Your task to perform on an android device: turn on the 12-hour format for clock Image 0: 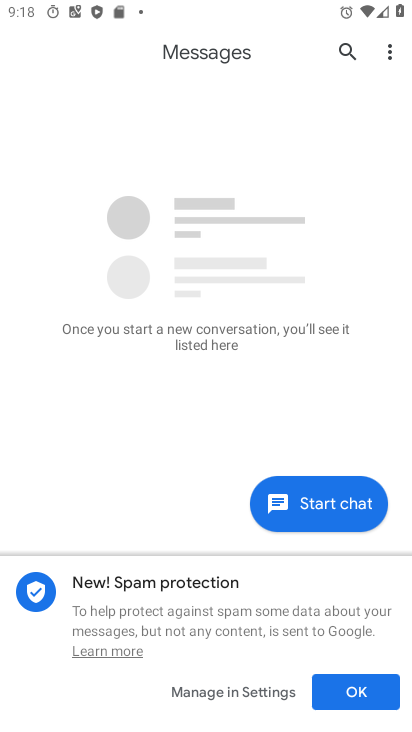
Step 0: press home button
Your task to perform on an android device: turn on the 12-hour format for clock Image 1: 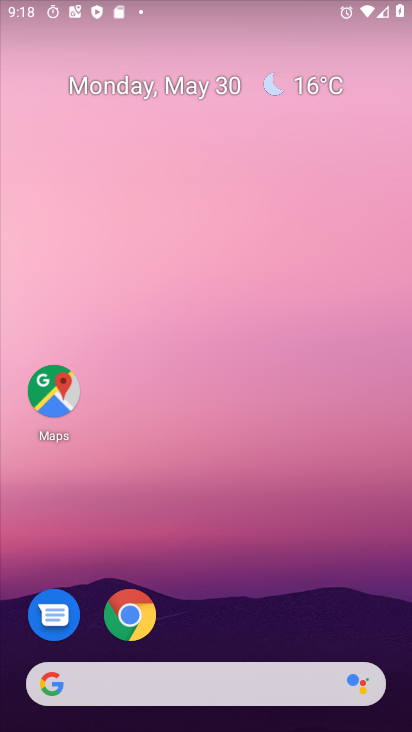
Step 1: drag from (325, 620) to (394, 137)
Your task to perform on an android device: turn on the 12-hour format for clock Image 2: 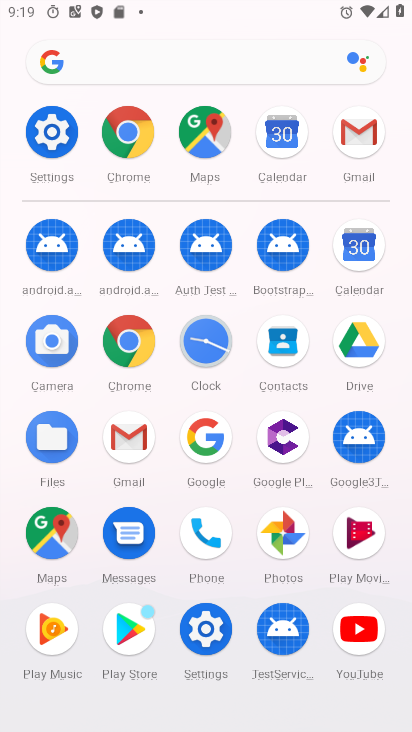
Step 2: click (197, 348)
Your task to perform on an android device: turn on the 12-hour format for clock Image 3: 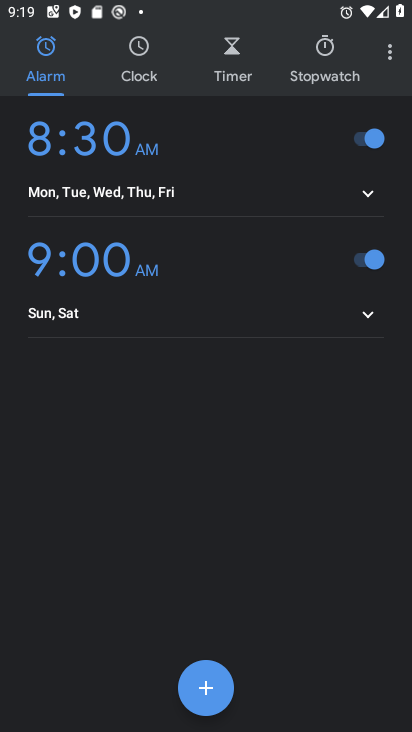
Step 3: click (380, 57)
Your task to perform on an android device: turn on the 12-hour format for clock Image 4: 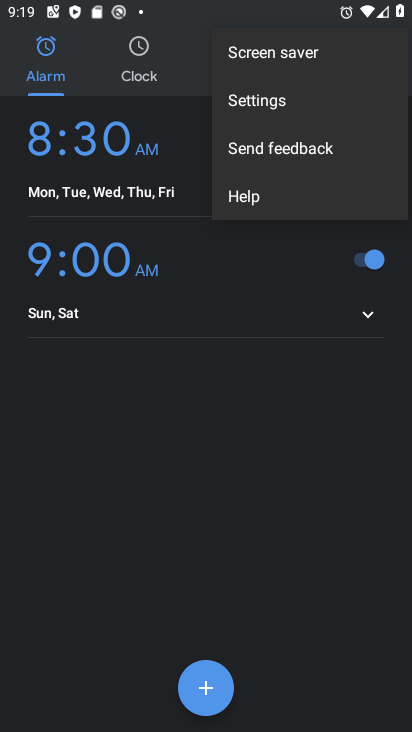
Step 4: click (271, 114)
Your task to perform on an android device: turn on the 12-hour format for clock Image 5: 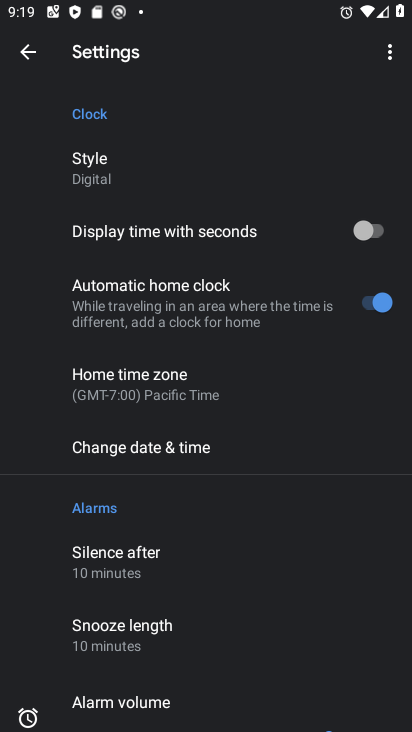
Step 5: click (105, 453)
Your task to perform on an android device: turn on the 12-hour format for clock Image 6: 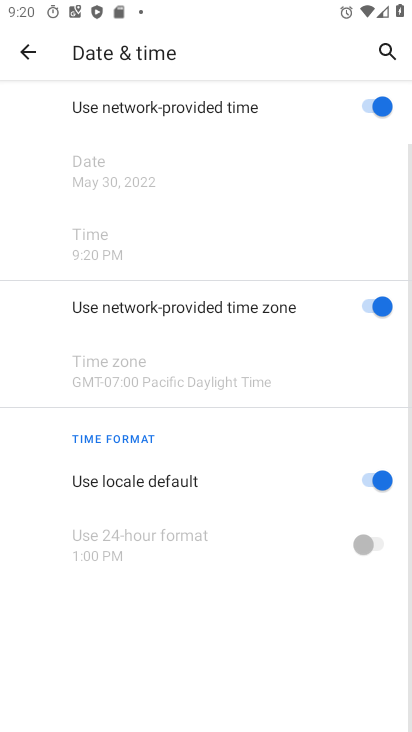
Step 6: task complete